Your task to perform on an android device: toggle location history Image 0: 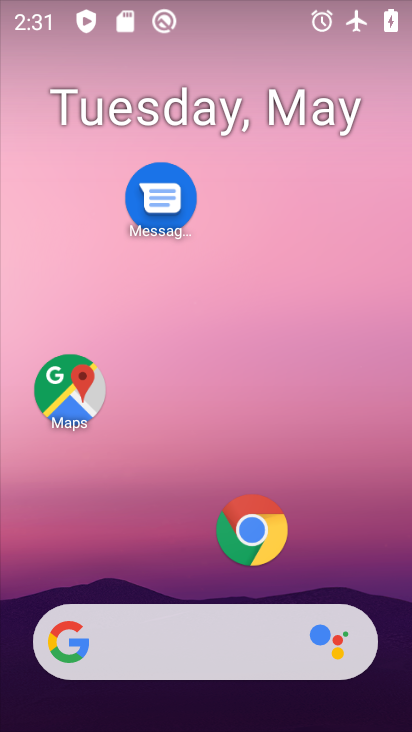
Step 0: drag from (198, 563) to (257, 246)
Your task to perform on an android device: toggle location history Image 1: 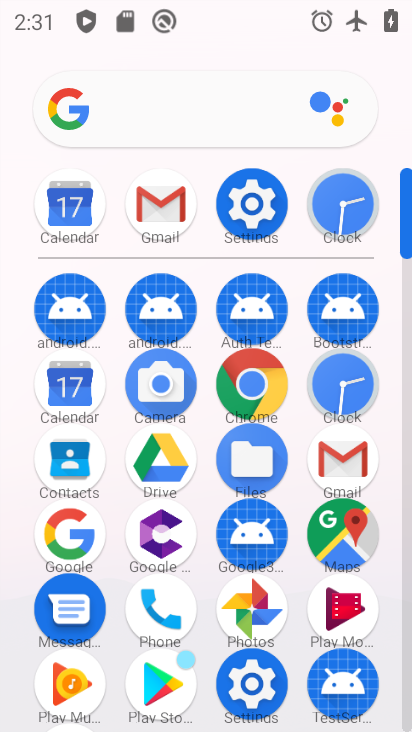
Step 1: click (257, 216)
Your task to perform on an android device: toggle location history Image 2: 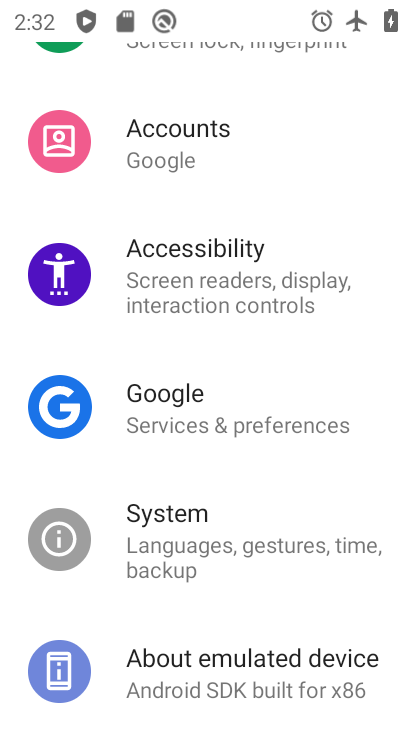
Step 2: drag from (229, 238) to (229, 560)
Your task to perform on an android device: toggle location history Image 3: 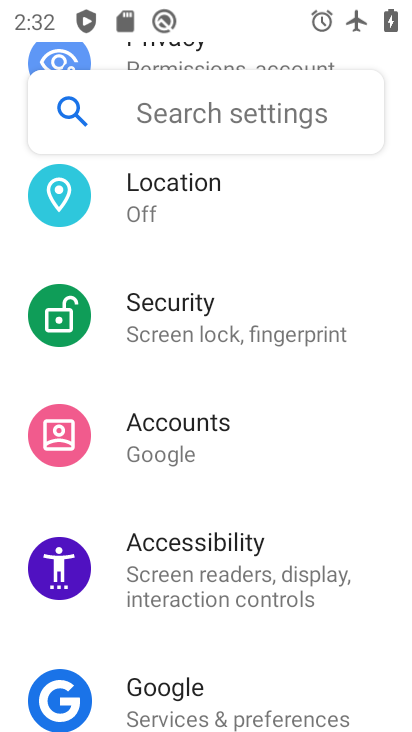
Step 3: drag from (238, 259) to (234, 436)
Your task to perform on an android device: toggle location history Image 4: 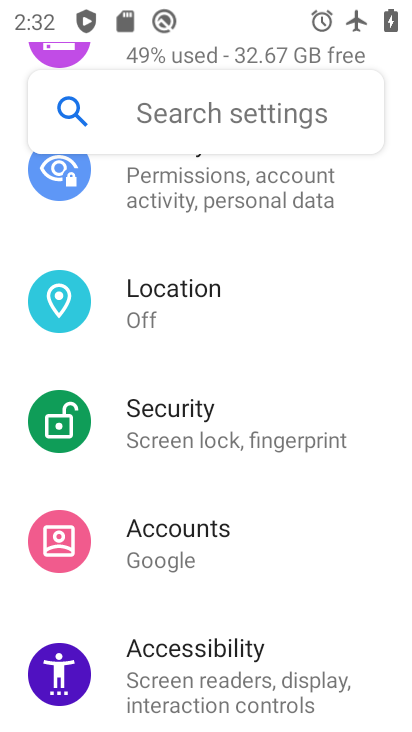
Step 4: click (205, 329)
Your task to perform on an android device: toggle location history Image 5: 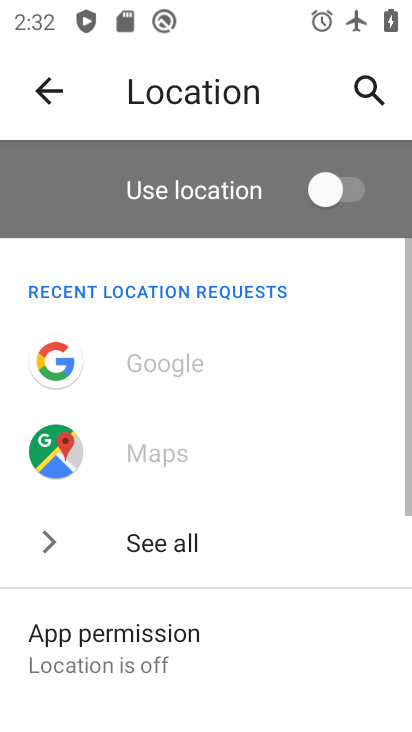
Step 5: drag from (222, 558) to (267, 217)
Your task to perform on an android device: toggle location history Image 6: 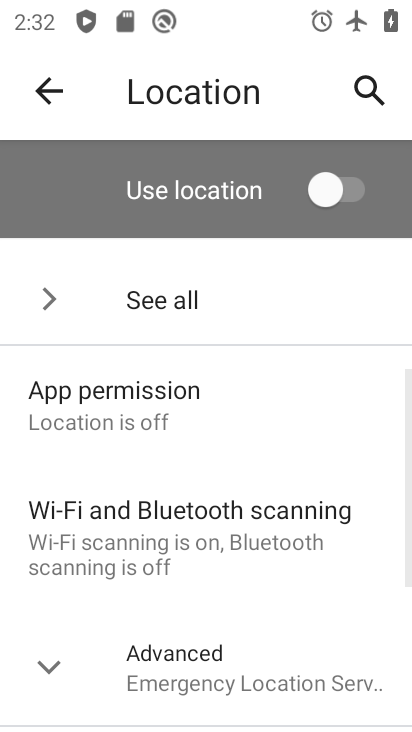
Step 6: drag from (257, 583) to (283, 330)
Your task to perform on an android device: toggle location history Image 7: 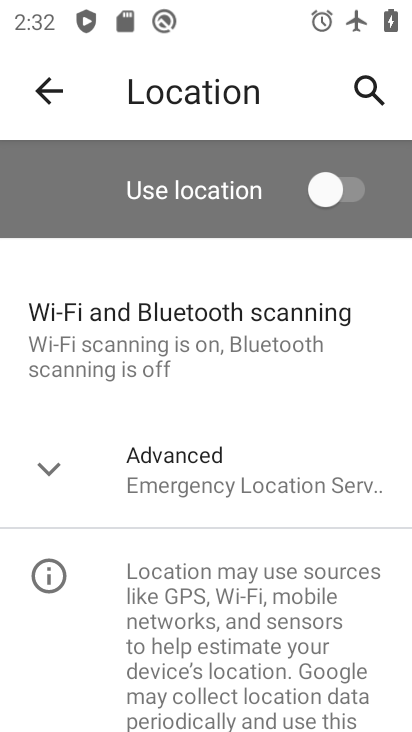
Step 7: click (232, 462)
Your task to perform on an android device: toggle location history Image 8: 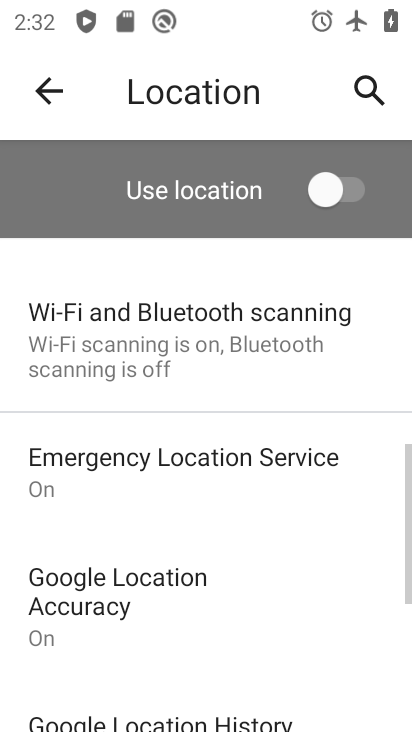
Step 8: click (280, 383)
Your task to perform on an android device: toggle location history Image 9: 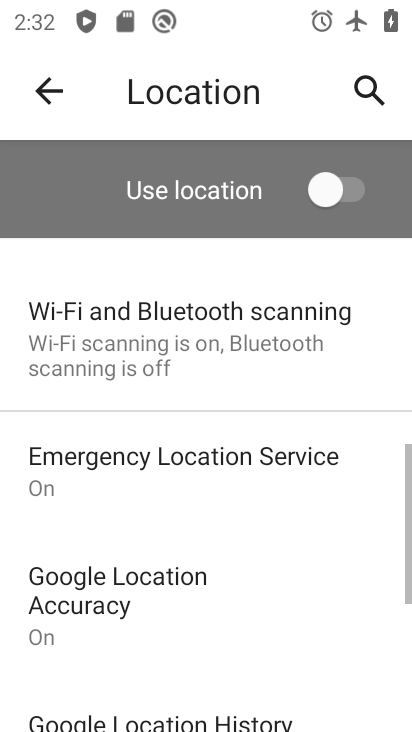
Step 9: drag from (238, 608) to (269, 390)
Your task to perform on an android device: toggle location history Image 10: 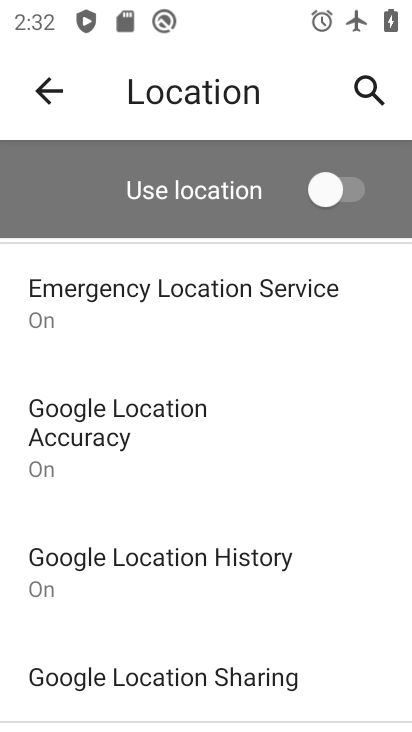
Step 10: click (199, 544)
Your task to perform on an android device: toggle location history Image 11: 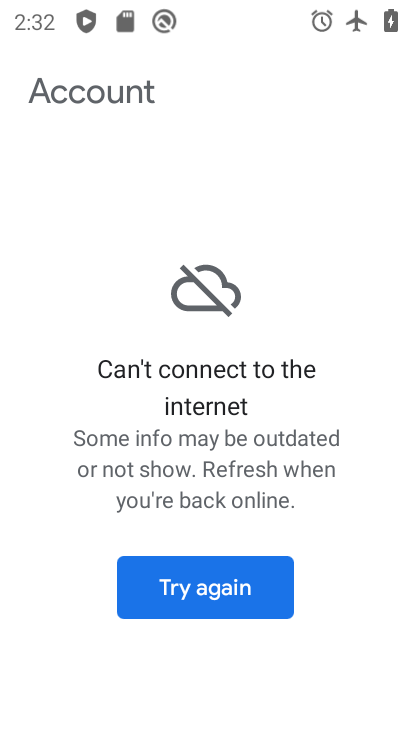
Step 11: click (222, 594)
Your task to perform on an android device: toggle location history Image 12: 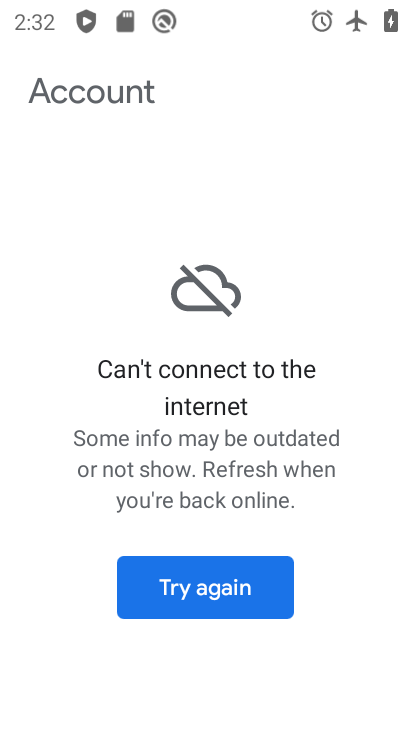
Step 12: task complete